Your task to perform on an android device: move a message to another label in the gmail app Image 0: 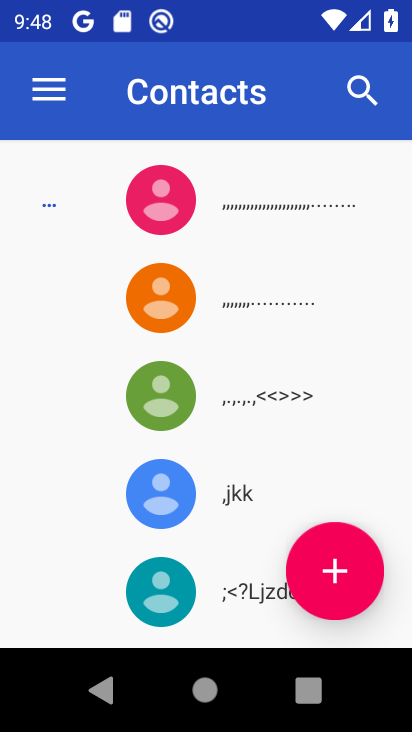
Step 0: press home button
Your task to perform on an android device: move a message to another label in the gmail app Image 1: 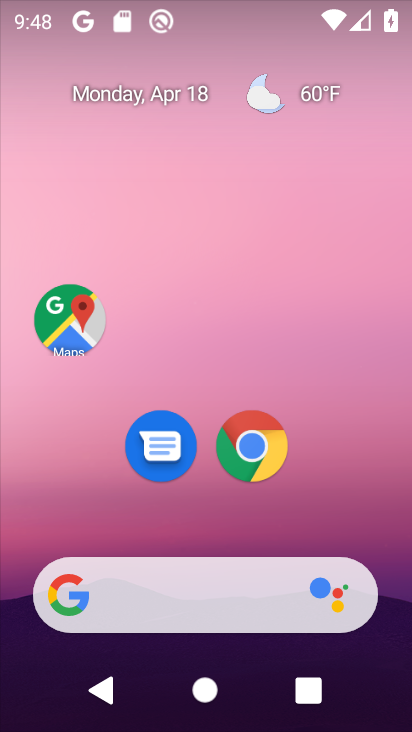
Step 1: drag from (389, 525) to (369, 120)
Your task to perform on an android device: move a message to another label in the gmail app Image 2: 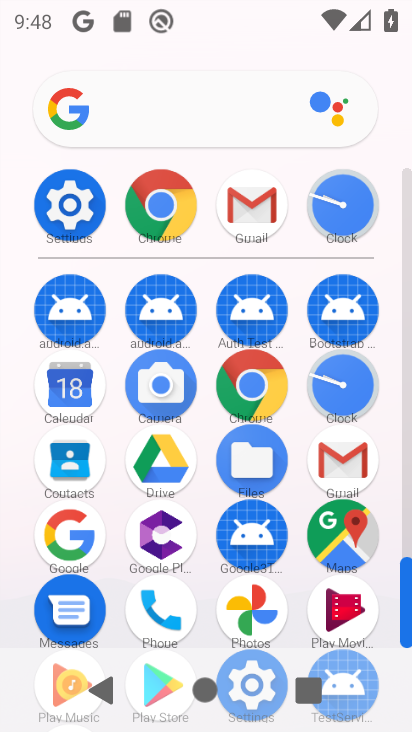
Step 2: click (342, 466)
Your task to perform on an android device: move a message to another label in the gmail app Image 3: 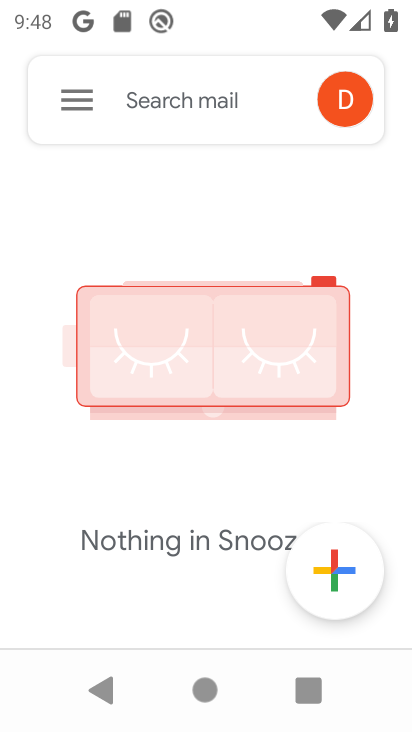
Step 3: click (73, 95)
Your task to perform on an android device: move a message to another label in the gmail app Image 4: 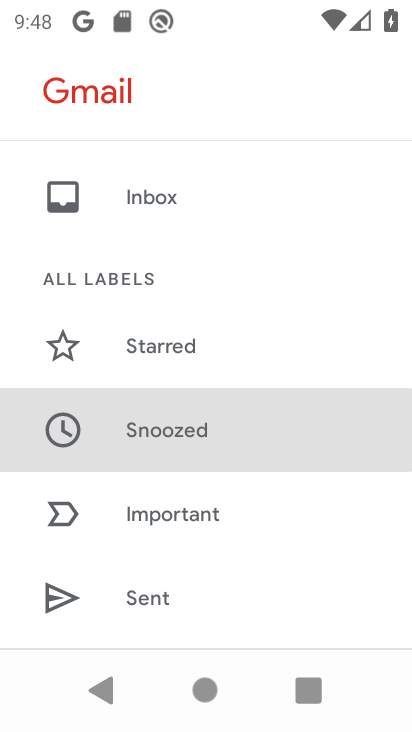
Step 4: click (148, 192)
Your task to perform on an android device: move a message to another label in the gmail app Image 5: 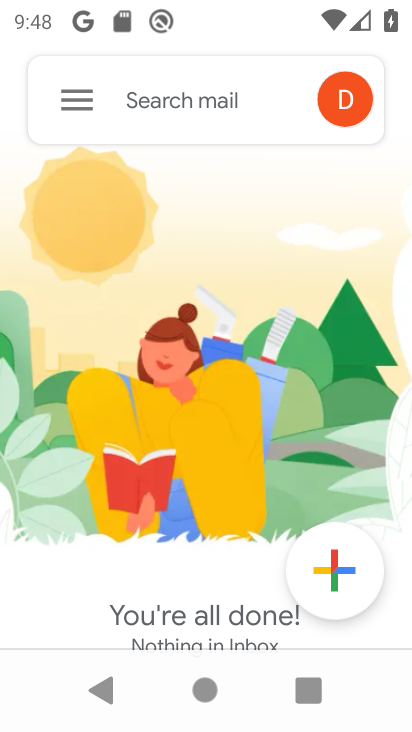
Step 5: task complete